Your task to perform on an android device: Search for Mexican restaurants on Maps Image 0: 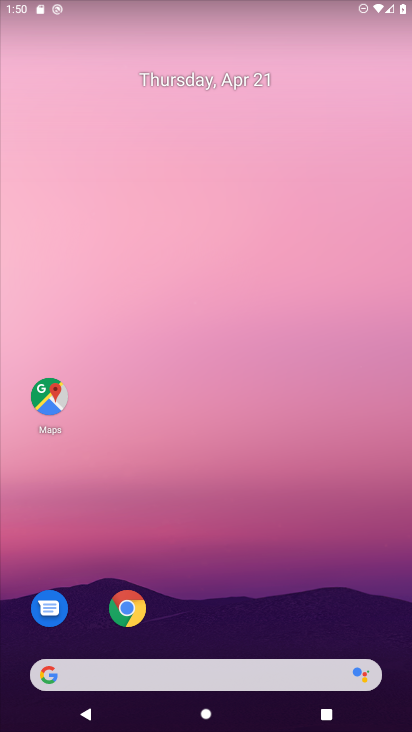
Step 0: drag from (303, 547) to (297, 168)
Your task to perform on an android device: Search for Mexican restaurants on Maps Image 1: 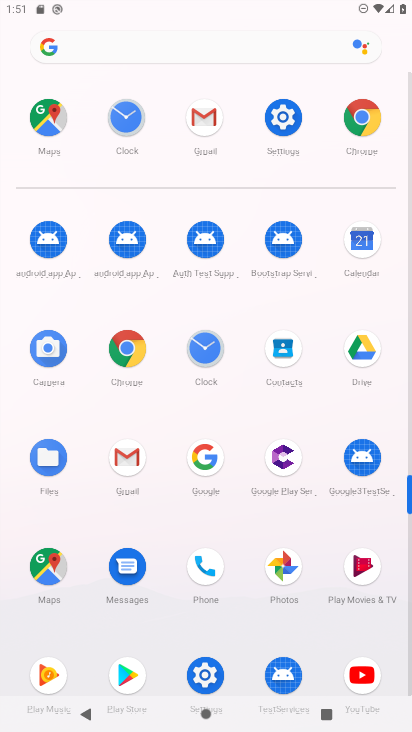
Step 1: click (21, 116)
Your task to perform on an android device: Search for Mexican restaurants on Maps Image 2: 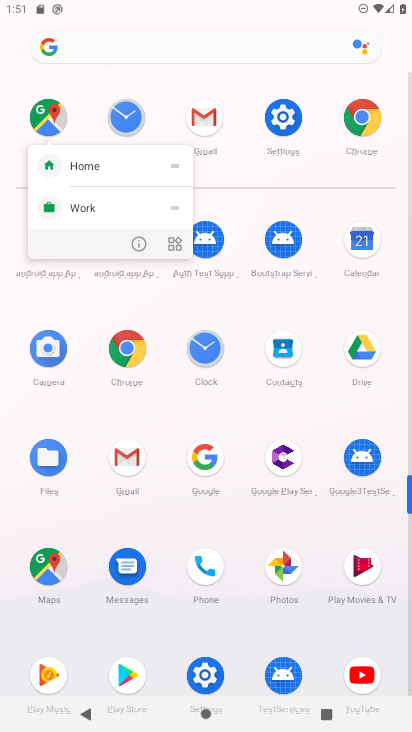
Step 2: click (60, 107)
Your task to perform on an android device: Search for Mexican restaurants on Maps Image 3: 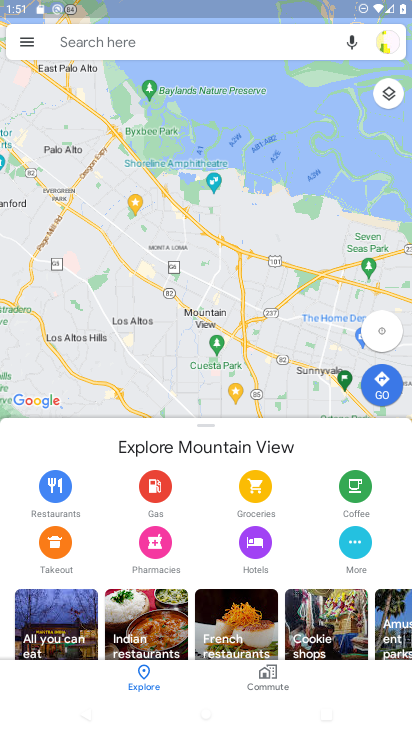
Step 3: click (197, 45)
Your task to perform on an android device: Search for Mexican restaurants on Maps Image 4: 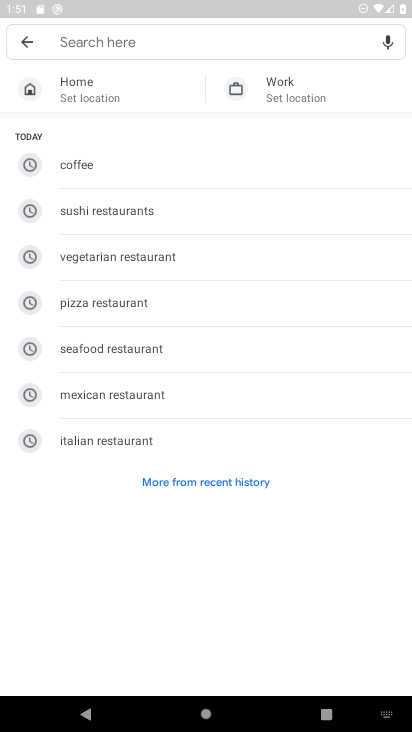
Step 4: click (117, 395)
Your task to perform on an android device: Search for Mexican restaurants on Maps Image 5: 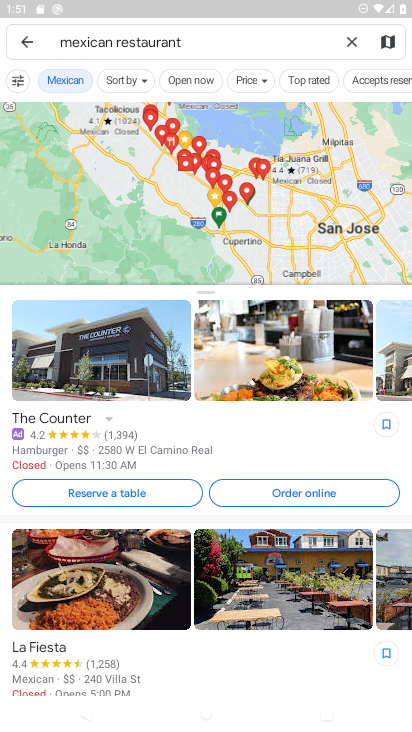
Step 5: task complete